Your task to perform on an android device: Open calendar and show me the first week of next month Image 0: 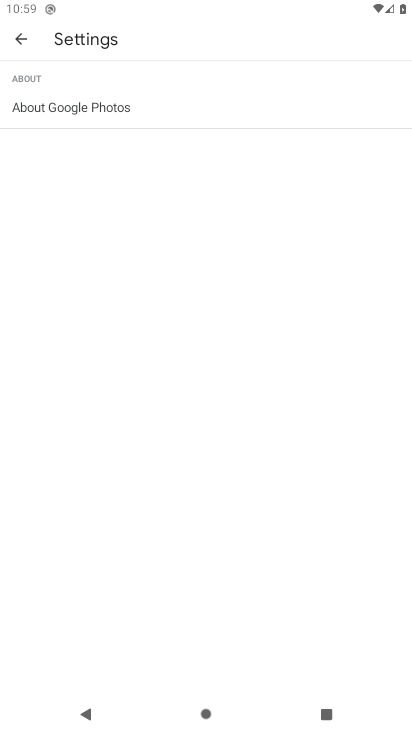
Step 0: press home button
Your task to perform on an android device: Open calendar and show me the first week of next month Image 1: 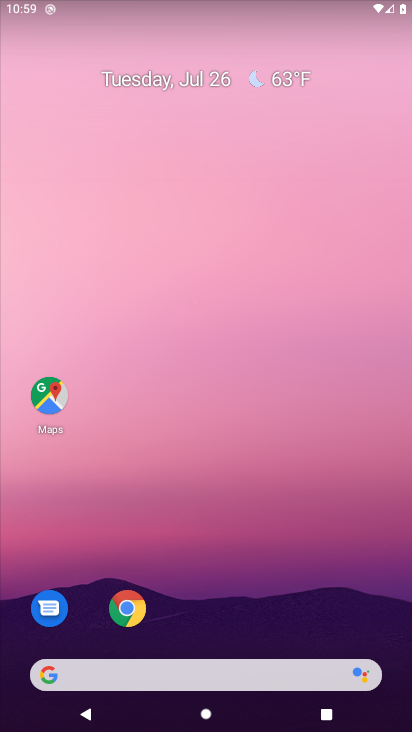
Step 1: drag from (268, 630) to (307, 132)
Your task to perform on an android device: Open calendar and show me the first week of next month Image 2: 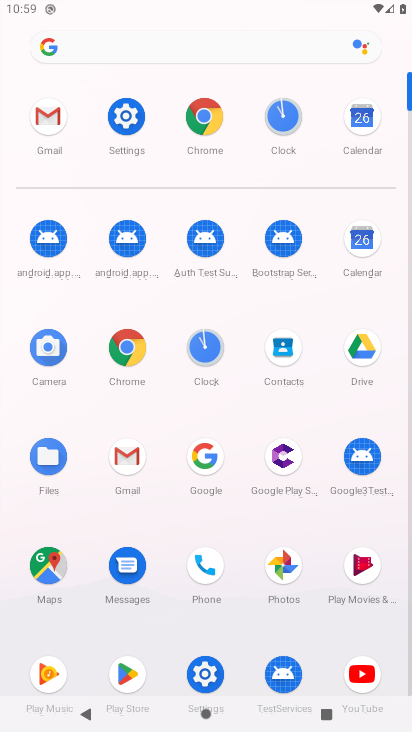
Step 2: click (364, 245)
Your task to perform on an android device: Open calendar and show me the first week of next month Image 3: 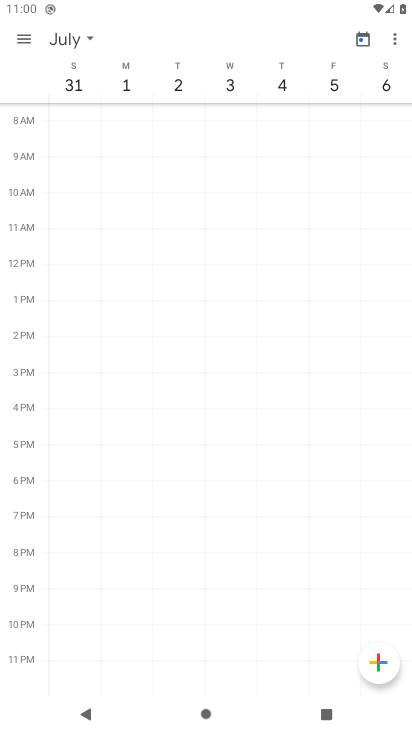
Step 3: task complete